Your task to perform on an android device: Open maps Image 0: 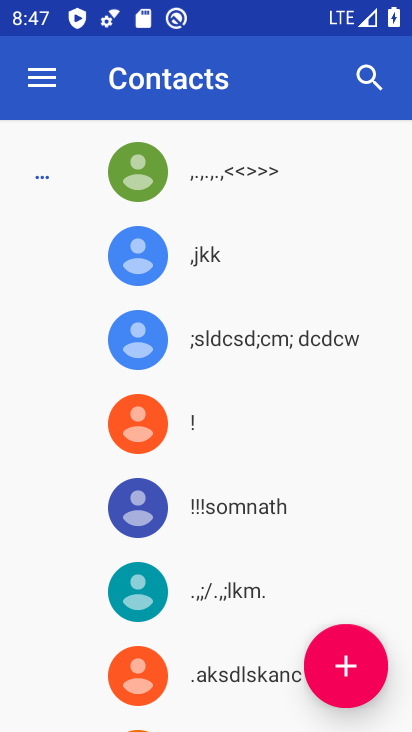
Step 0: press home button
Your task to perform on an android device: Open maps Image 1: 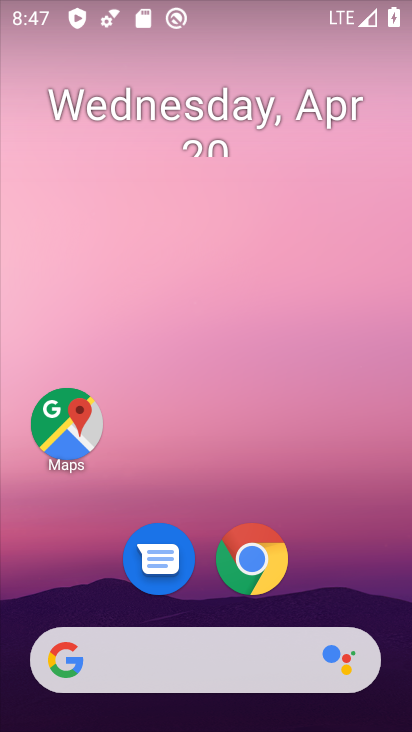
Step 1: click (76, 432)
Your task to perform on an android device: Open maps Image 2: 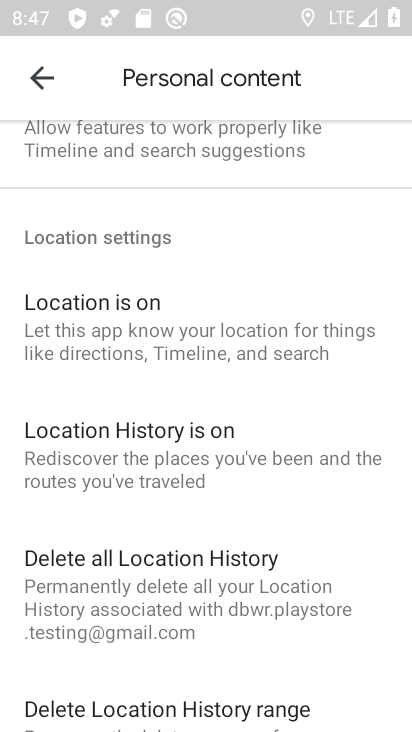
Step 2: task complete